Your task to perform on an android device: toggle pop-ups in chrome Image 0: 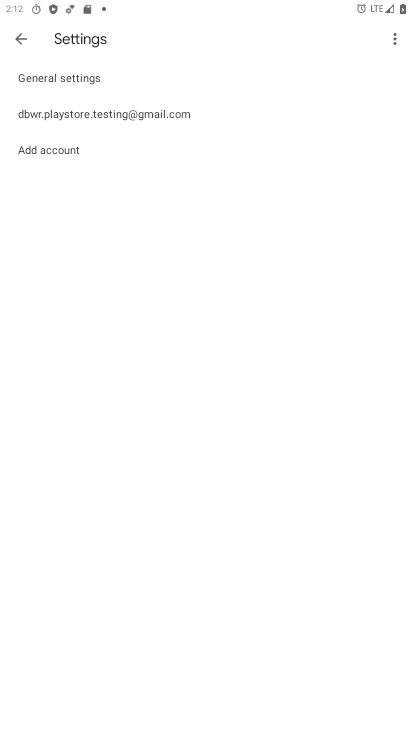
Step 0: press home button
Your task to perform on an android device: toggle pop-ups in chrome Image 1: 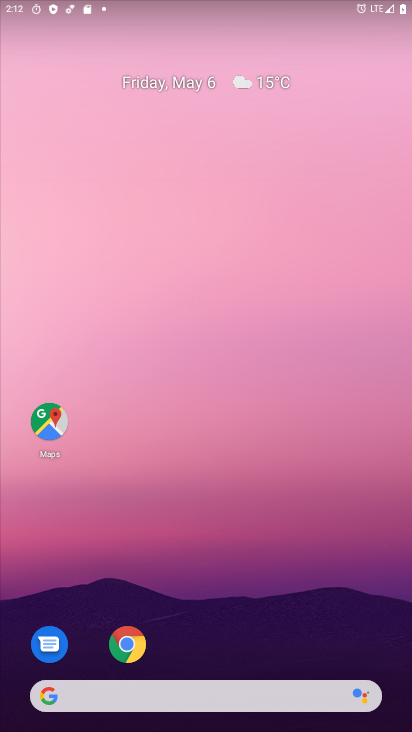
Step 1: drag from (222, 640) to (200, 202)
Your task to perform on an android device: toggle pop-ups in chrome Image 2: 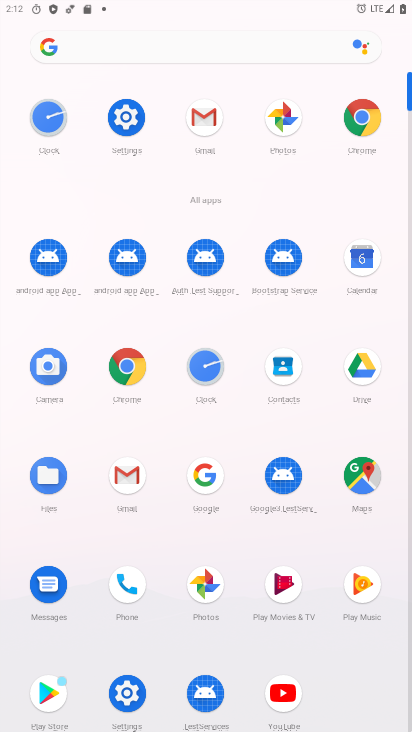
Step 2: click (368, 111)
Your task to perform on an android device: toggle pop-ups in chrome Image 3: 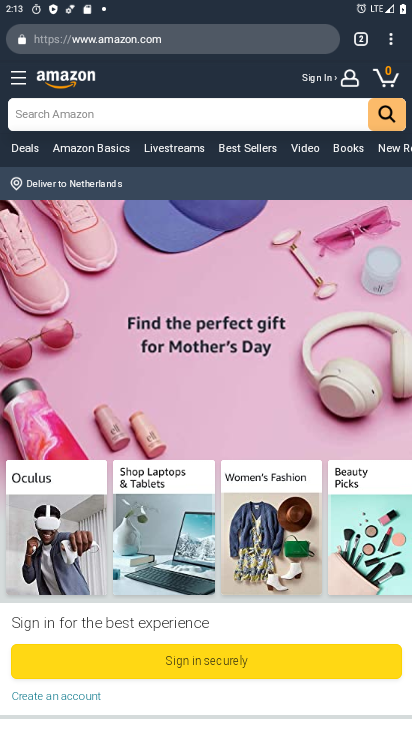
Step 3: drag from (387, 52) to (292, 468)
Your task to perform on an android device: toggle pop-ups in chrome Image 4: 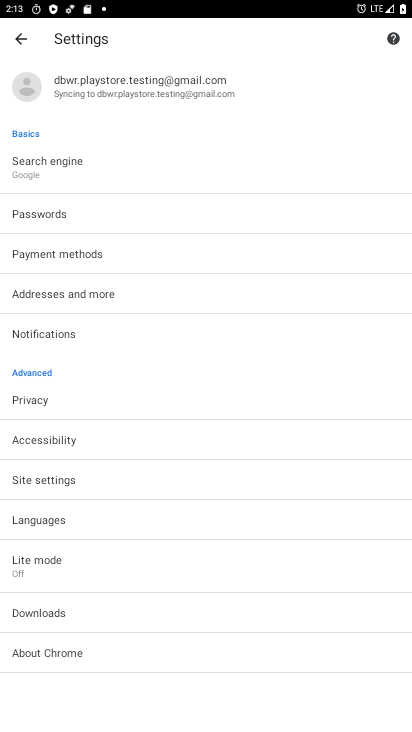
Step 4: click (213, 475)
Your task to perform on an android device: toggle pop-ups in chrome Image 5: 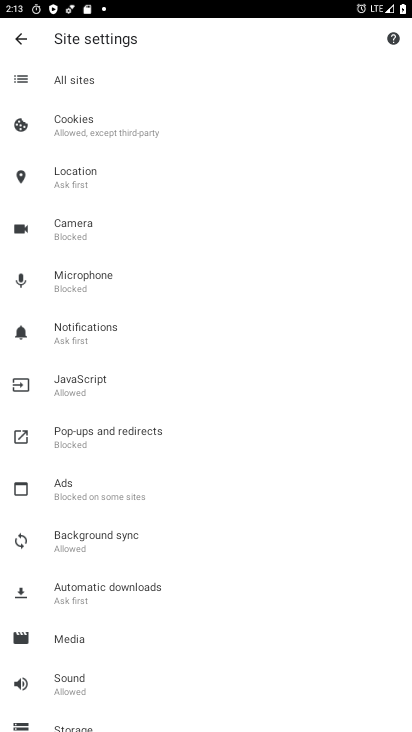
Step 5: click (204, 435)
Your task to perform on an android device: toggle pop-ups in chrome Image 6: 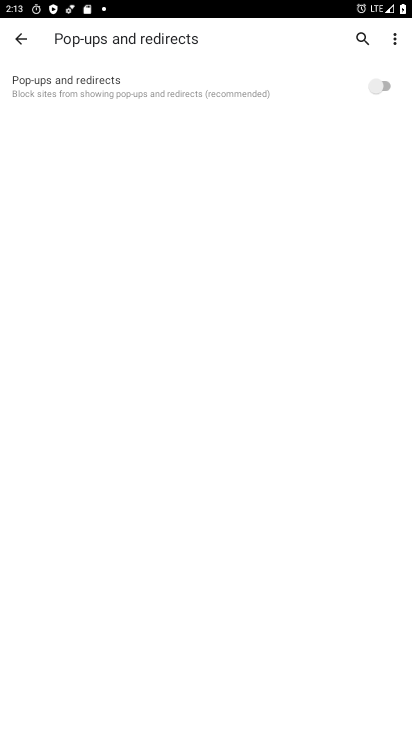
Step 6: click (381, 89)
Your task to perform on an android device: toggle pop-ups in chrome Image 7: 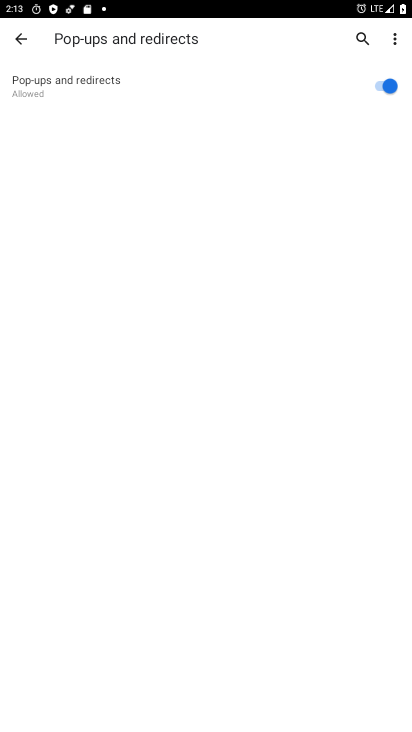
Step 7: task complete